Your task to perform on an android device: Open wifi settings Image 0: 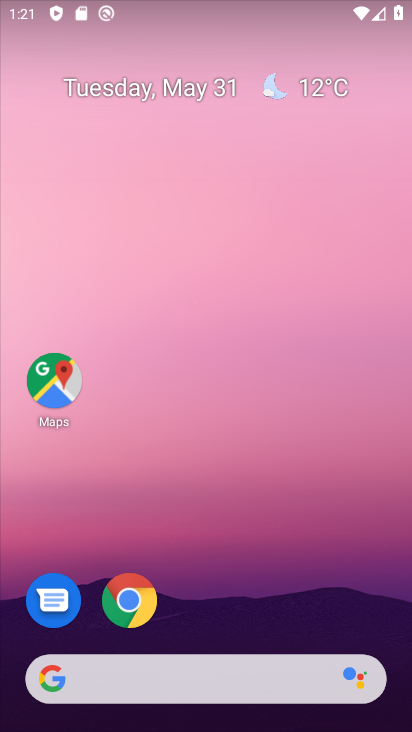
Step 0: drag from (267, 436) to (178, 47)
Your task to perform on an android device: Open wifi settings Image 1: 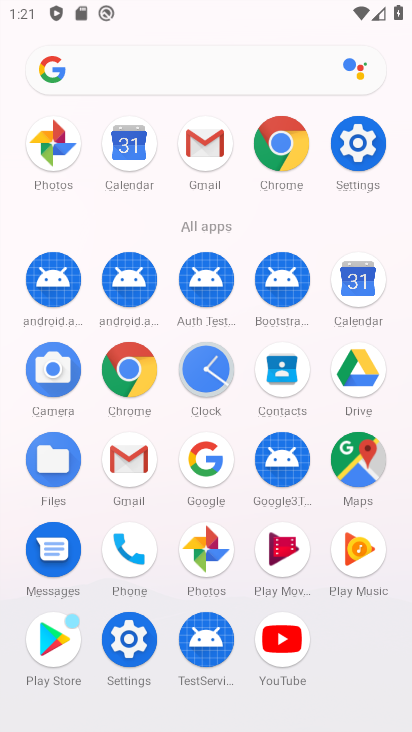
Step 1: click (356, 132)
Your task to perform on an android device: Open wifi settings Image 2: 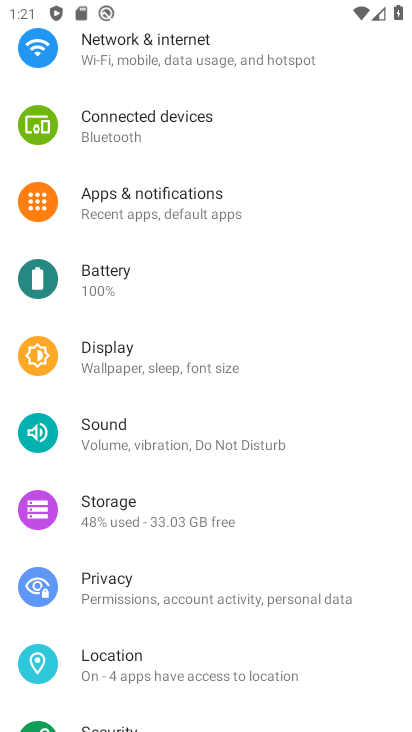
Step 2: click (232, 62)
Your task to perform on an android device: Open wifi settings Image 3: 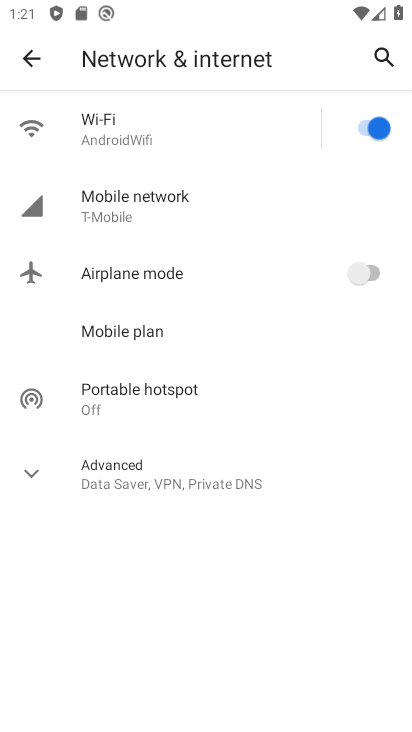
Step 3: click (223, 128)
Your task to perform on an android device: Open wifi settings Image 4: 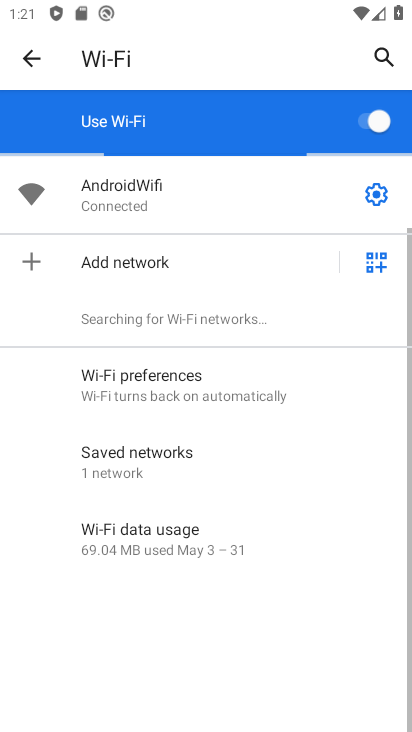
Step 4: task complete